Your task to perform on an android device: Go to Google maps Image 0: 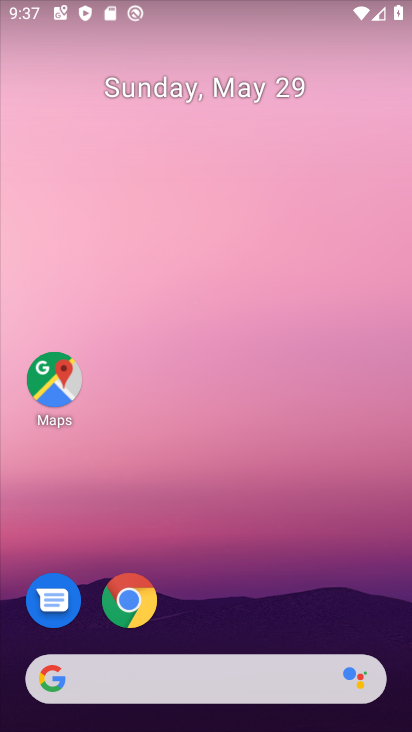
Step 0: drag from (200, 718) to (210, 87)
Your task to perform on an android device: Go to Google maps Image 1: 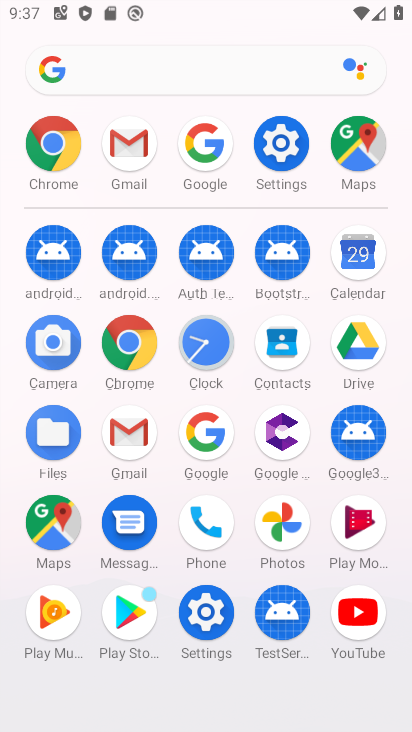
Step 1: click (49, 505)
Your task to perform on an android device: Go to Google maps Image 2: 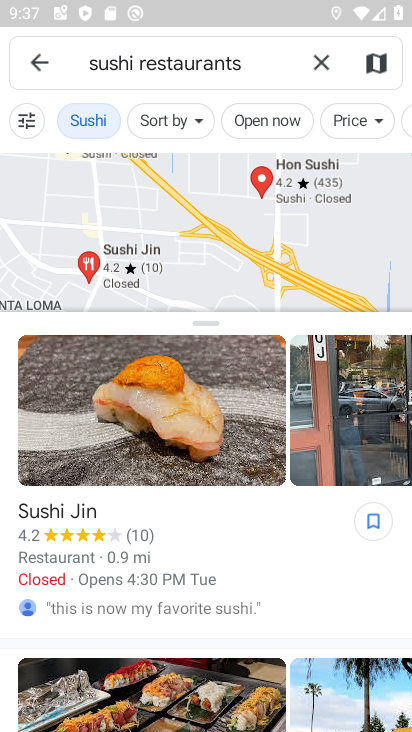
Step 2: task complete